Your task to perform on an android device: turn on location history Image 0: 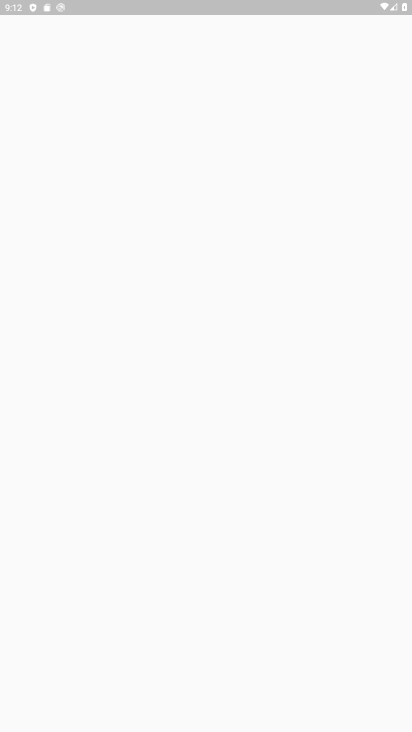
Step 0: press home button
Your task to perform on an android device: turn on location history Image 1: 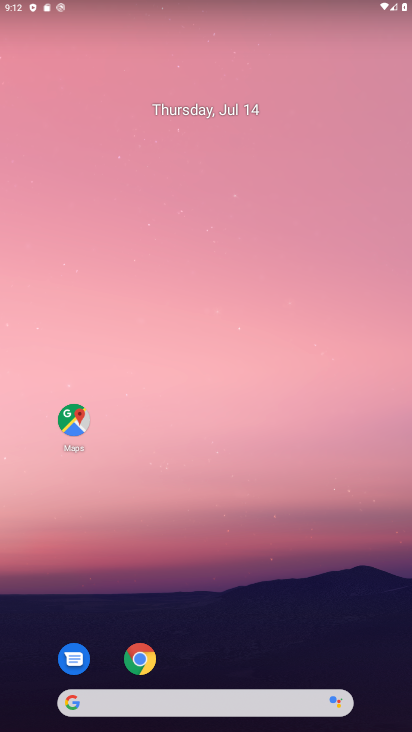
Step 1: drag from (223, 624) to (225, 324)
Your task to perform on an android device: turn on location history Image 2: 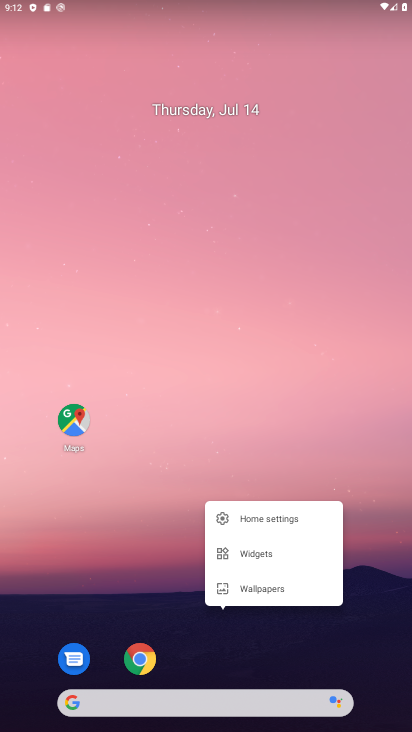
Step 2: click (177, 507)
Your task to perform on an android device: turn on location history Image 3: 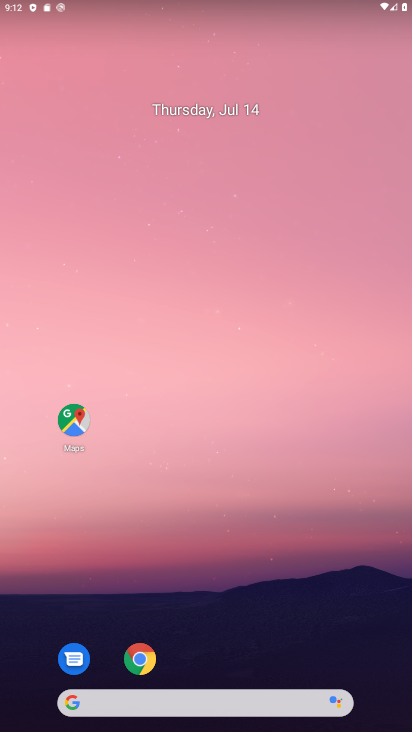
Step 3: drag from (252, 659) to (255, 313)
Your task to perform on an android device: turn on location history Image 4: 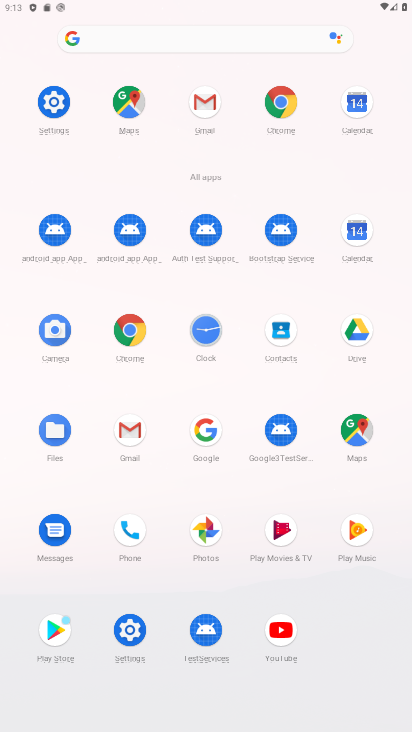
Step 4: click (50, 103)
Your task to perform on an android device: turn on location history Image 5: 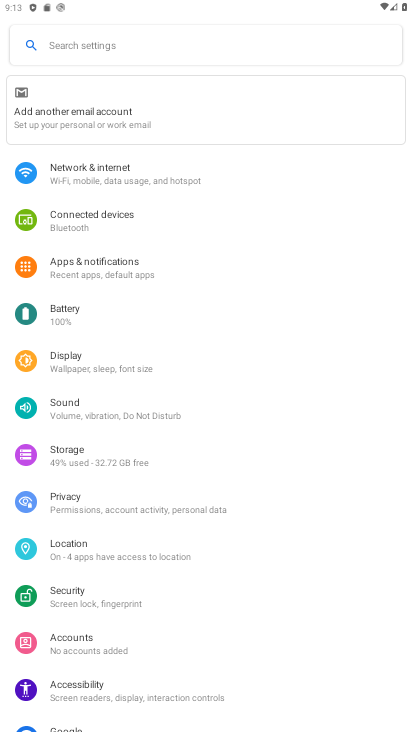
Step 5: click (97, 542)
Your task to perform on an android device: turn on location history Image 6: 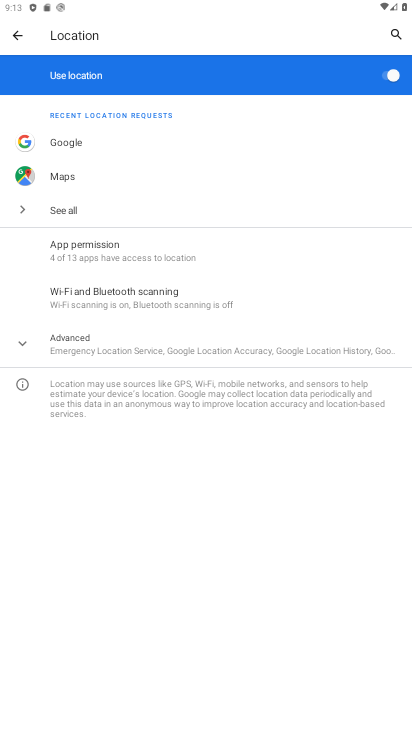
Step 6: click (139, 337)
Your task to perform on an android device: turn on location history Image 7: 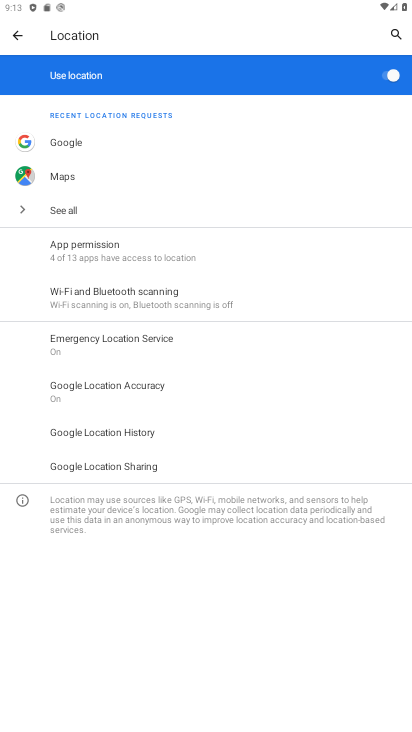
Step 7: click (89, 428)
Your task to perform on an android device: turn on location history Image 8: 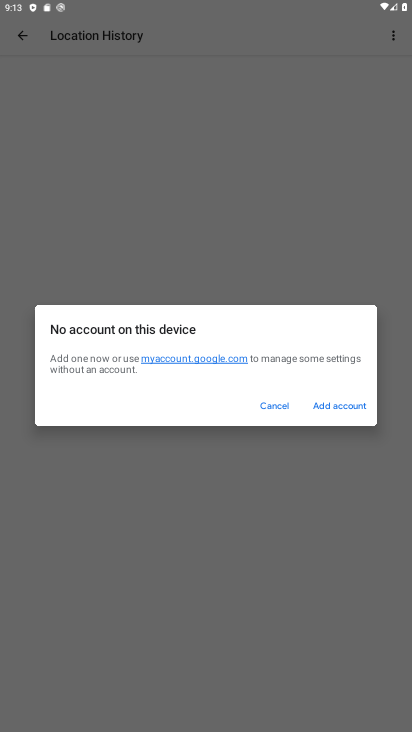
Step 8: click (291, 407)
Your task to perform on an android device: turn on location history Image 9: 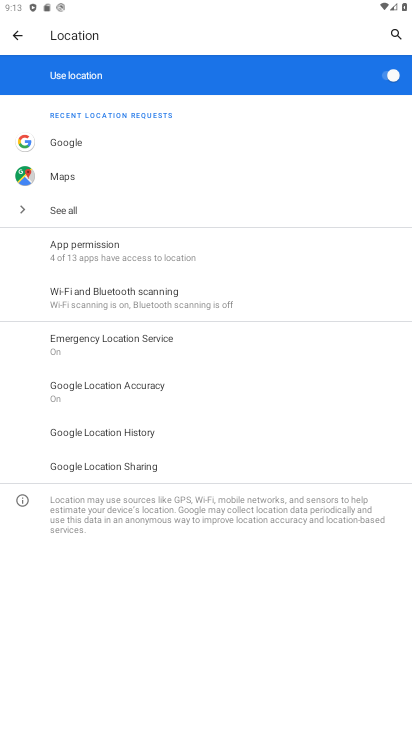
Step 9: task complete